Your task to perform on an android device: turn on the 24-hour format for clock Image 0: 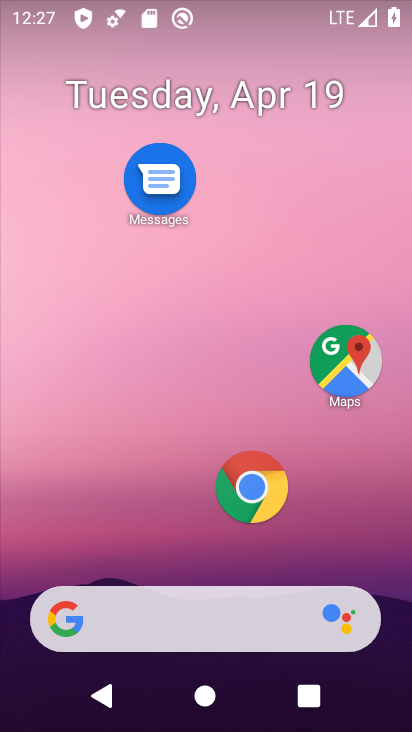
Step 0: drag from (115, 510) to (200, 0)
Your task to perform on an android device: turn on the 24-hour format for clock Image 1: 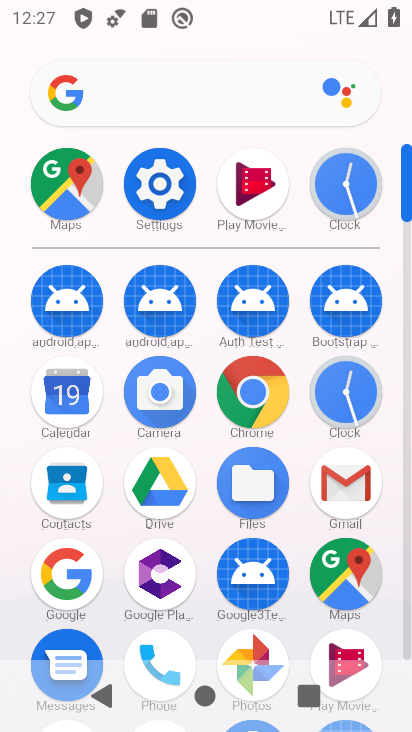
Step 1: click (331, 181)
Your task to perform on an android device: turn on the 24-hour format for clock Image 2: 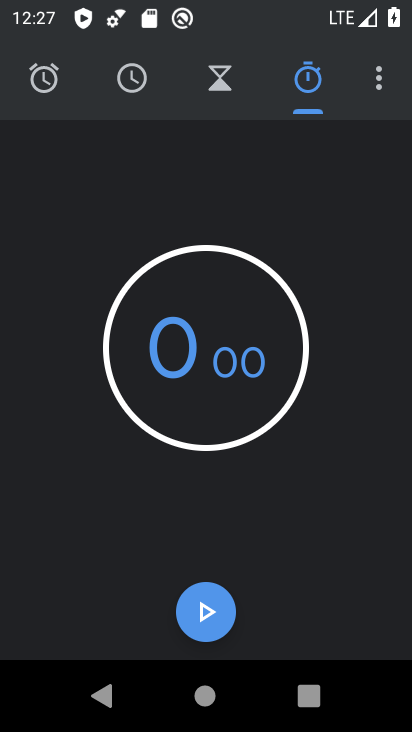
Step 2: click (366, 82)
Your task to perform on an android device: turn on the 24-hour format for clock Image 3: 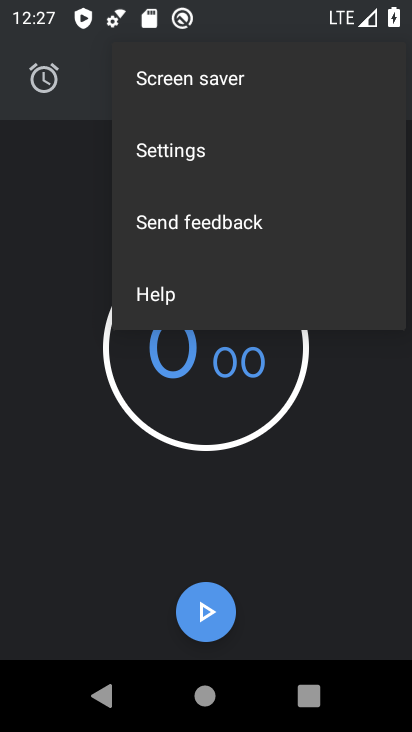
Step 3: click (182, 159)
Your task to perform on an android device: turn on the 24-hour format for clock Image 4: 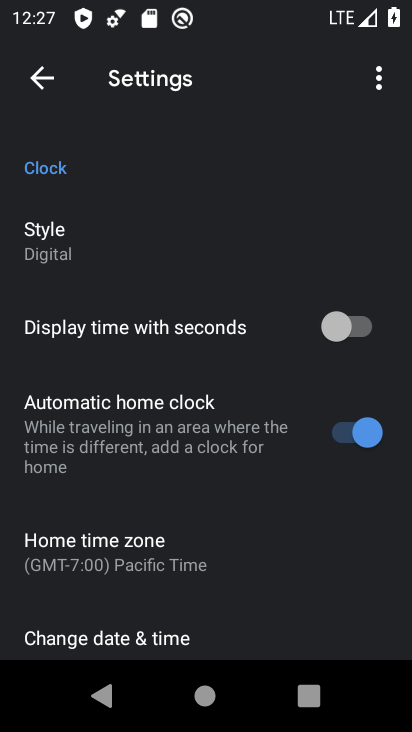
Step 4: drag from (206, 503) to (186, 142)
Your task to perform on an android device: turn on the 24-hour format for clock Image 5: 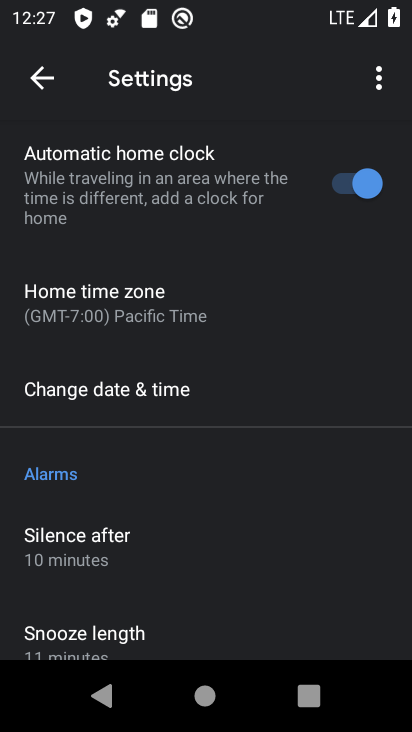
Step 5: click (119, 386)
Your task to perform on an android device: turn on the 24-hour format for clock Image 6: 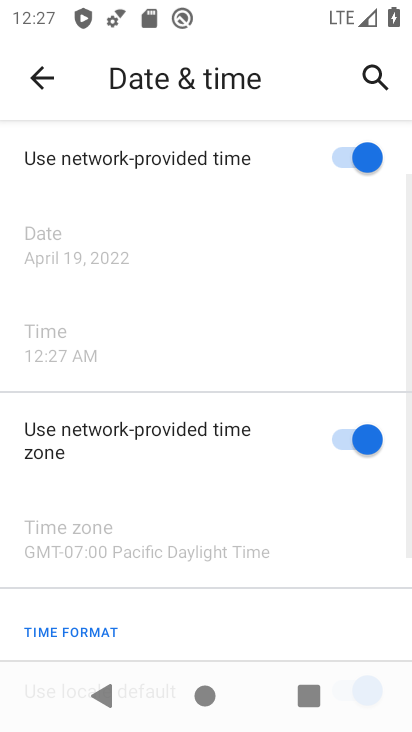
Step 6: drag from (172, 539) to (170, 194)
Your task to perform on an android device: turn on the 24-hour format for clock Image 7: 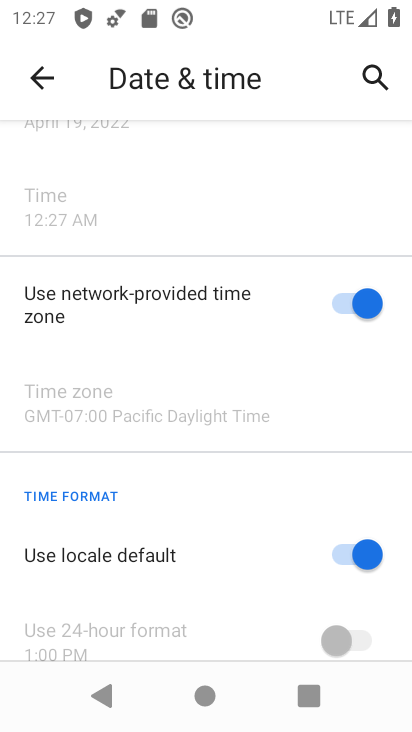
Step 7: drag from (188, 555) to (171, 157)
Your task to perform on an android device: turn on the 24-hour format for clock Image 8: 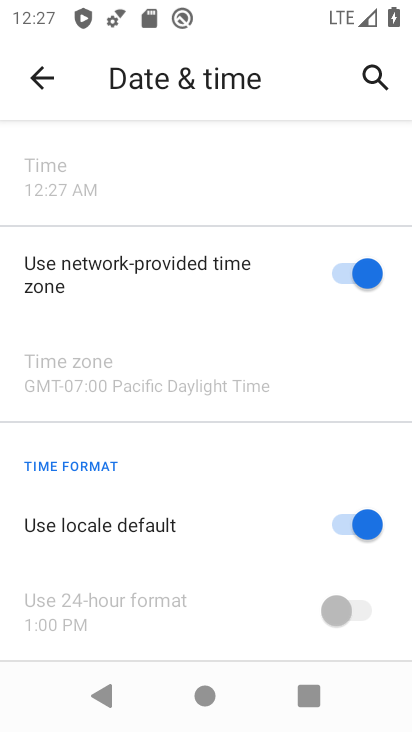
Step 8: click (339, 611)
Your task to perform on an android device: turn on the 24-hour format for clock Image 9: 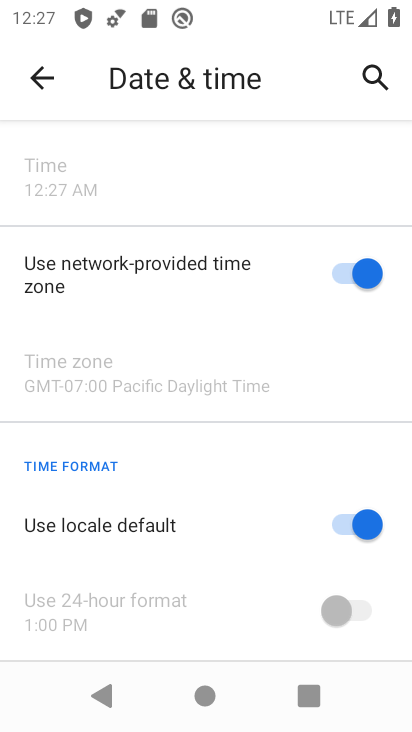
Step 9: click (366, 530)
Your task to perform on an android device: turn on the 24-hour format for clock Image 10: 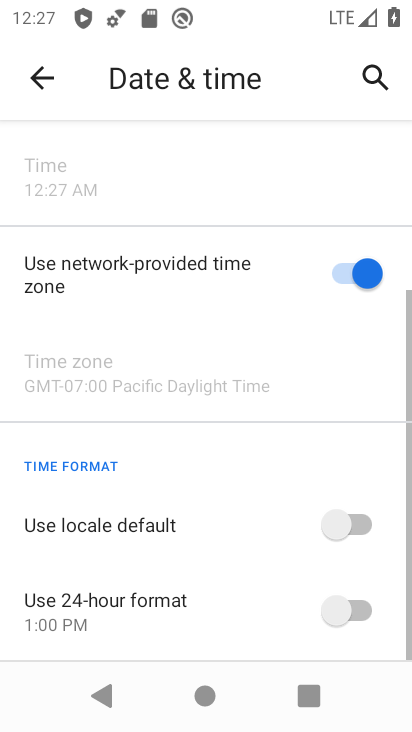
Step 10: click (333, 618)
Your task to perform on an android device: turn on the 24-hour format for clock Image 11: 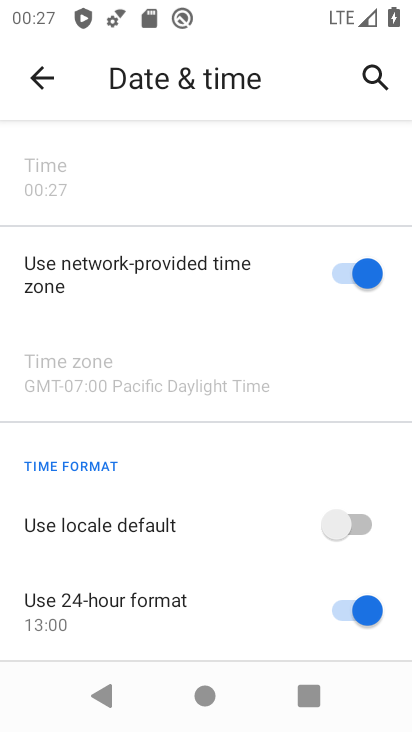
Step 11: task complete